Your task to perform on an android device: Search for "logitech g910" on newegg.com, select the first entry, and add it to the cart. Image 0: 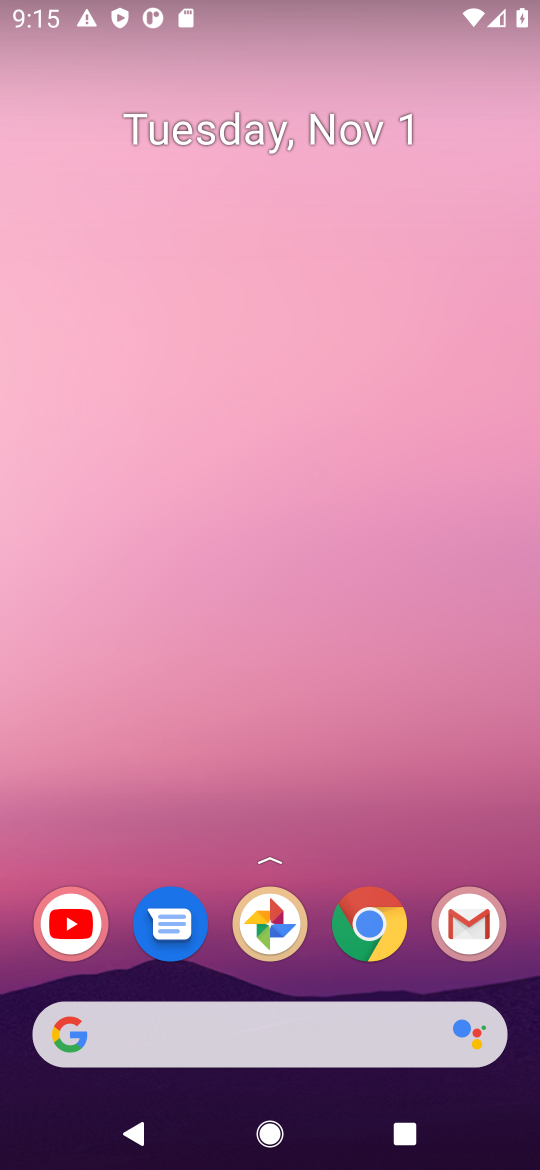
Step 0: click (374, 924)
Your task to perform on an android device: Search for "logitech g910" on newegg.com, select the first entry, and add it to the cart. Image 1: 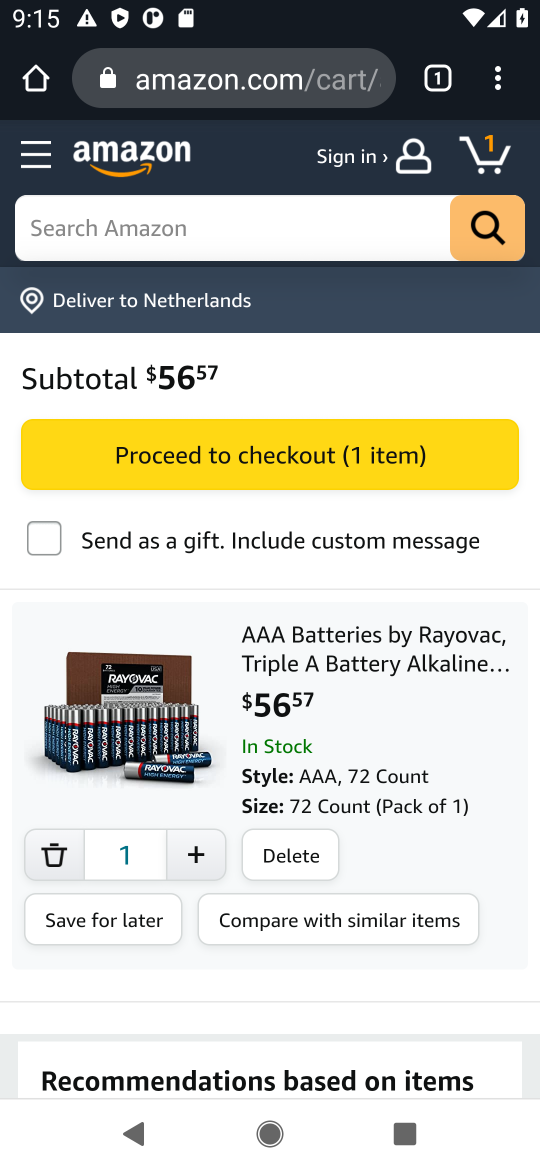
Step 1: click (256, 88)
Your task to perform on an android device: Search for "logitech g910" on newegg.com, select the first entry, and add it to the cart. Image 2: 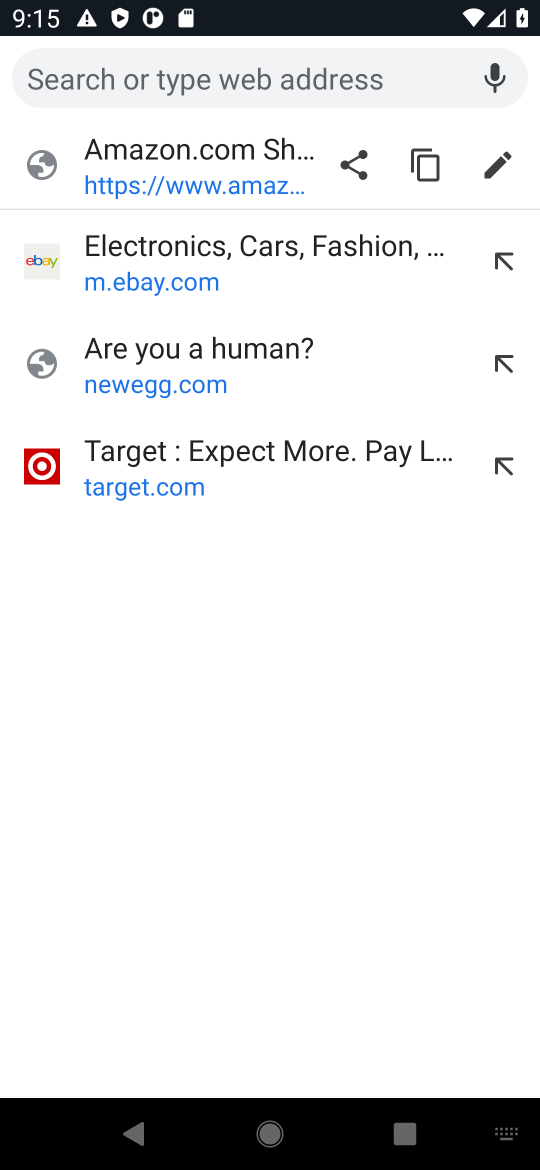
Step 2: type "newegg.com"
Your task to perform on an android device: Search for "logitech g910" on newegg.com, select the first entry, and add it to the cart. Image 3: 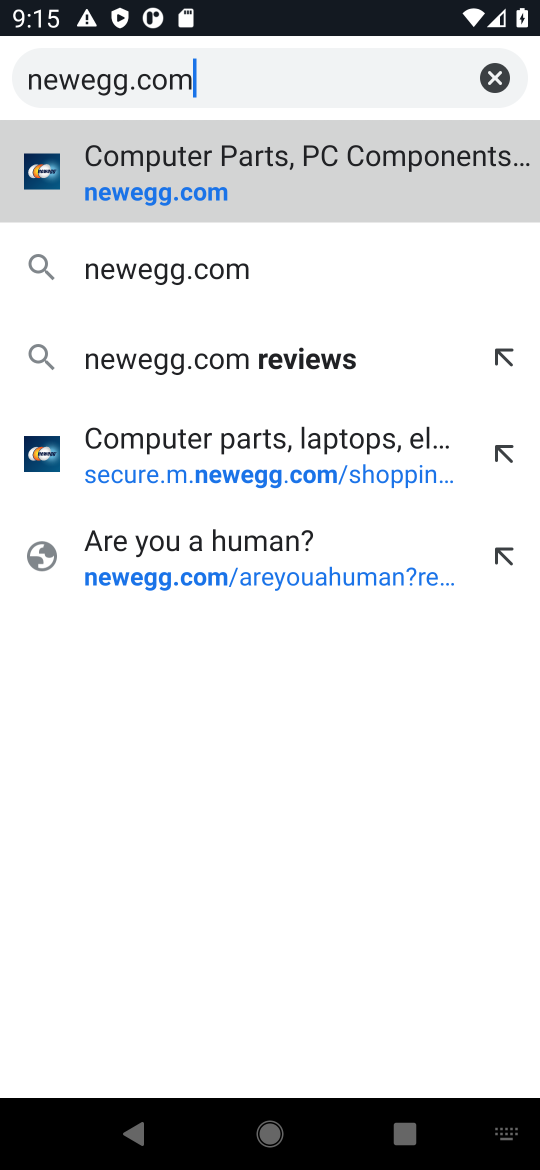
Step 3: click (369, 155)
Your task to perform on an android device: Search for "logitech g910" on newegg.com, select the first entry, and add it to the cart. Image 4: 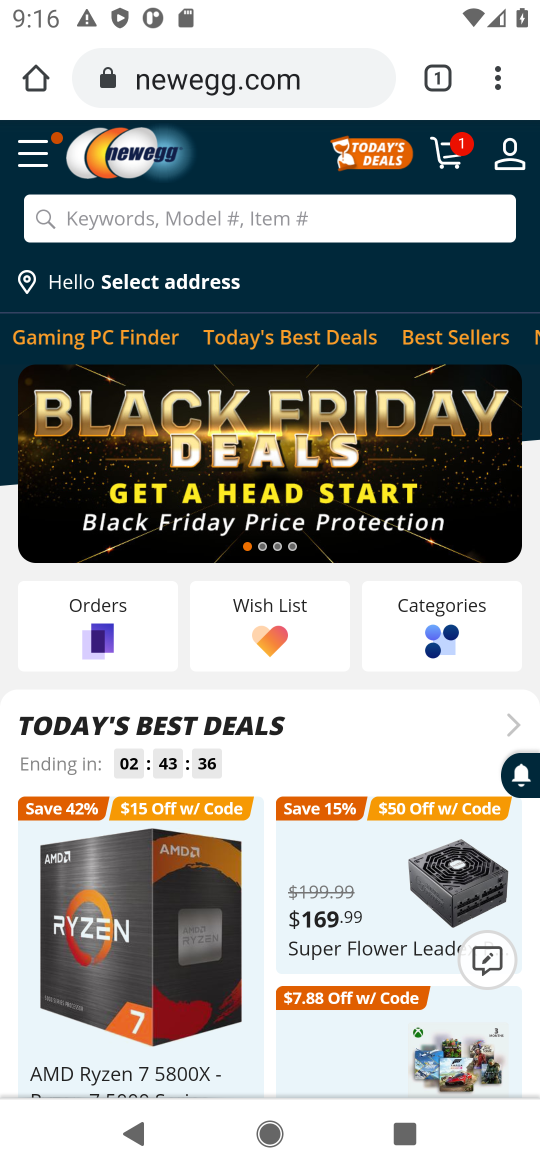
Step 4: click (321, 224)
Your task to perform on an android device: Search for "logitech g910" on newegg.com, select the first entry, and add it to the cart. Image 5: 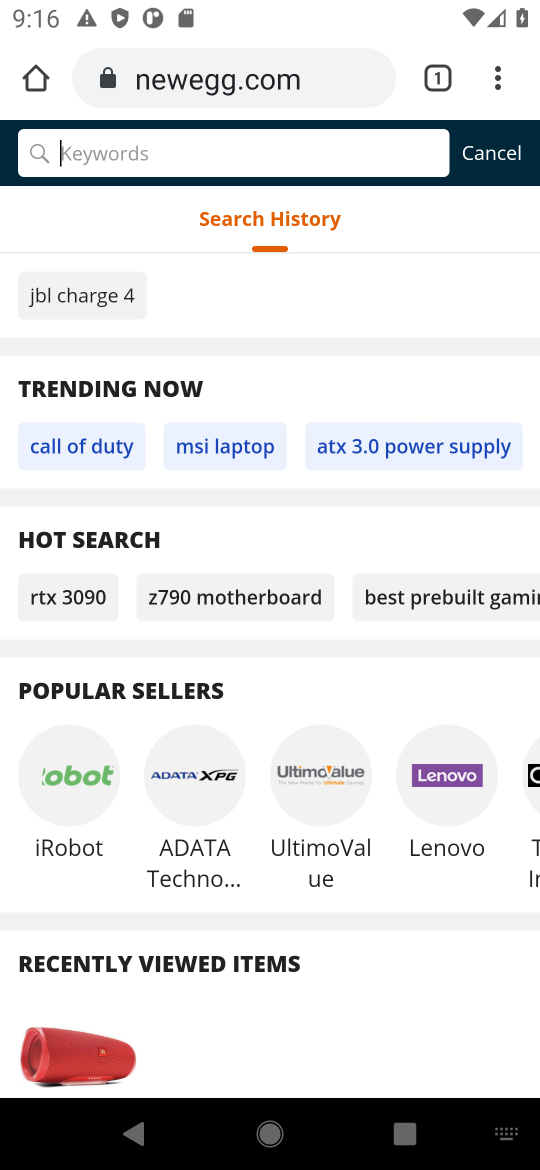
Step 5: type "logitech g910"
Your task to perform on an android device: Search for "logitech g910" on newegg.com, select the first entry, and add it to the cart. Image 6: 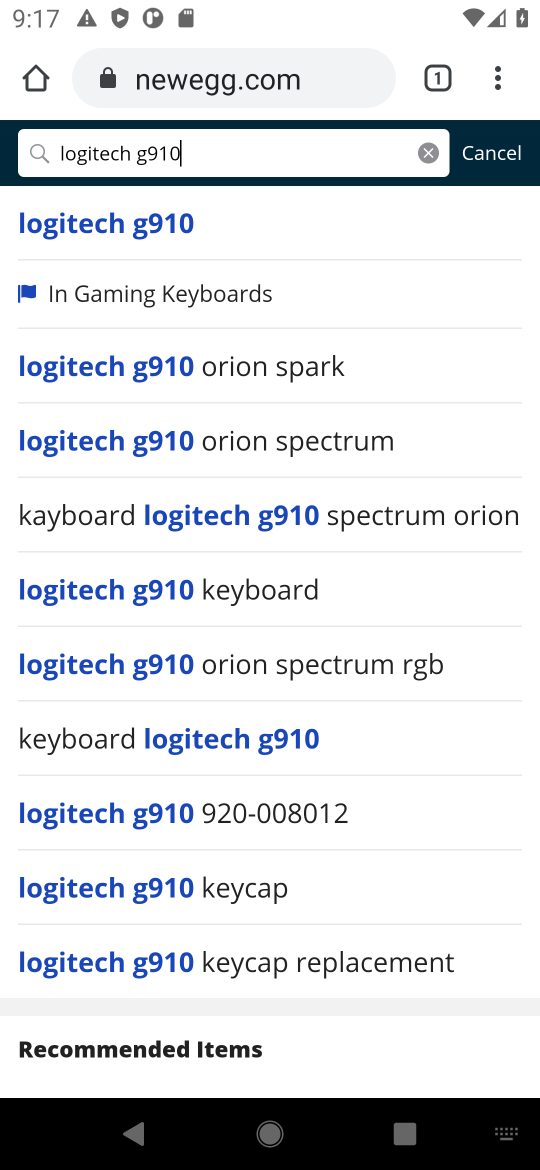
Step 6: click (170, 230)
Your task to perform on an android device: Search for "logitech g910" on newegg.com, select the first entry, and add it to the cart. Image 7: 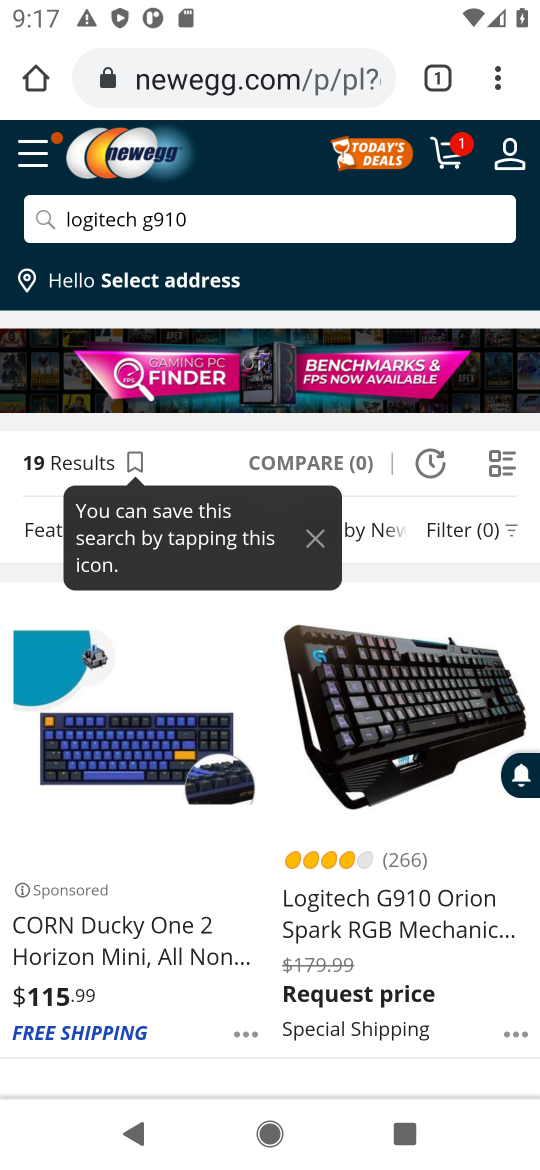
Step 7: click (345, 905)
Your task to perform on an android device: Search for "logitech g910" on newegg.com, select the first entry, and add it to the cart. Image 8: 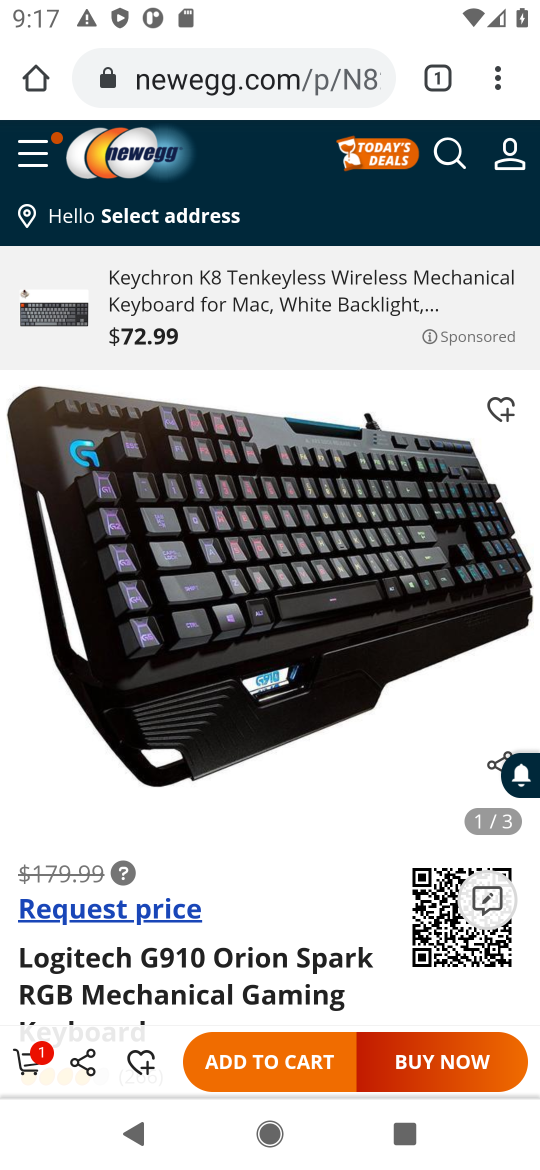
Step 8: click (275, 1067)
Your task to perform on an android device: Search for "logitech g910" on newegg.com, select the first entry, and add it to the cart. Image 9: 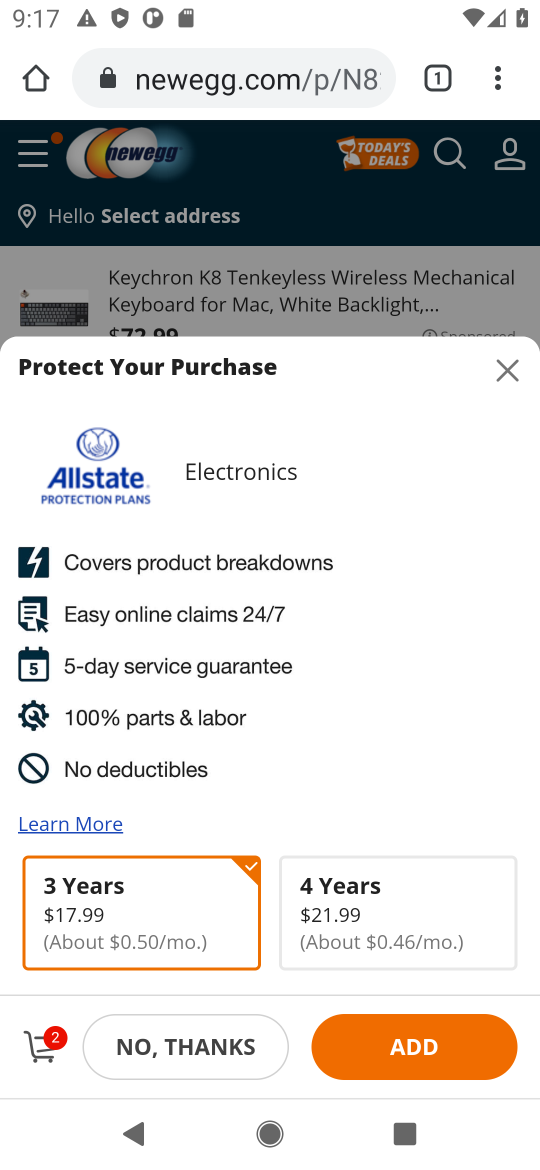
Step 9: task complete